Your task to perform on an android device: Open ESPN.com Image 0: 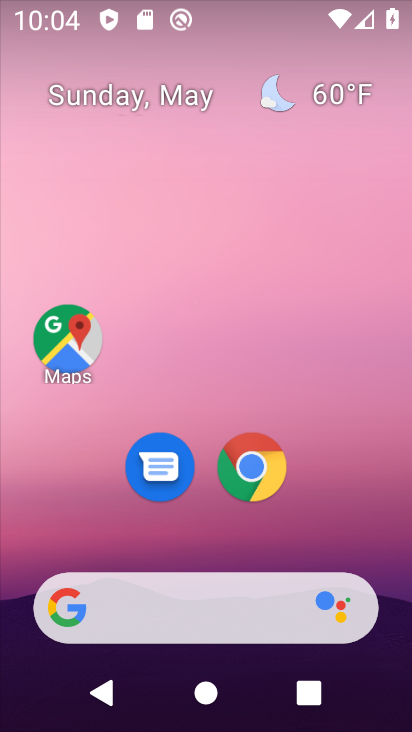
Step 0: drag from (377, 517) to (335, 157)
Your task to perform on an android device: Open ESPN.com Image 1: 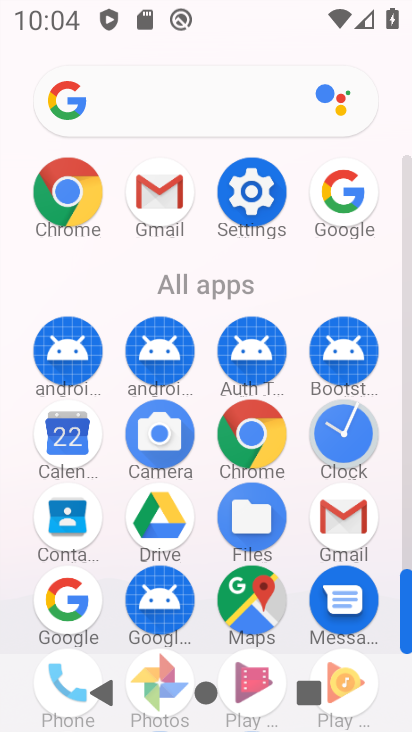
Step 1: click (242, 457)
Your task to perform on an android device: Open ESPN.com Image 2: 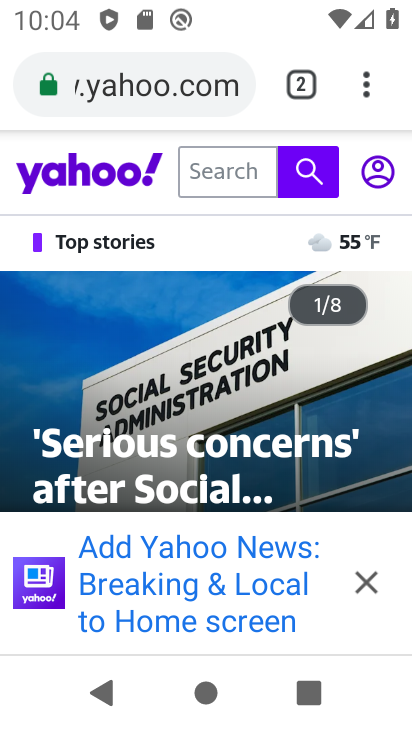
Step 2: click (179, 84)
Your task to perform on an android device: Open ESPN.com Image 3: 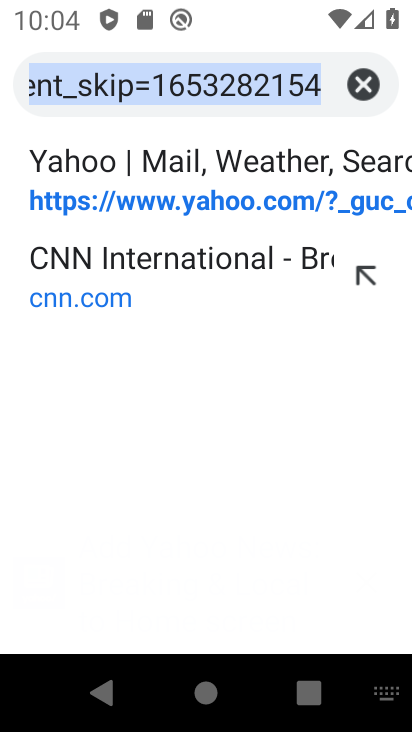
Step 3: click (366, 90)
Your task to perform on an android device: Open ESPN.com Image 4: 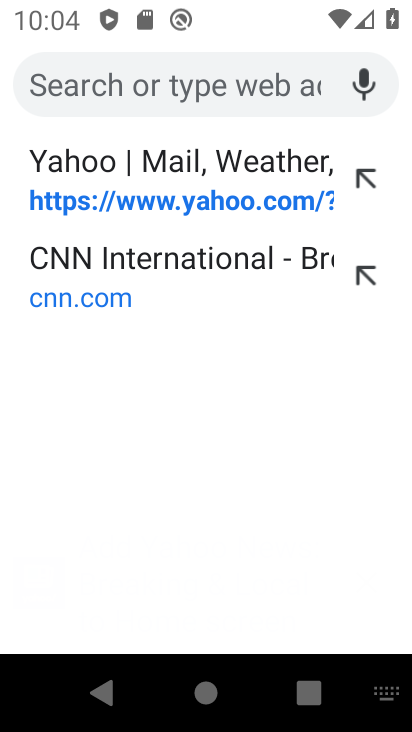
Step 4: type "espn.com"
Your task to perform on an android device: Open ESPN.com Image 5: 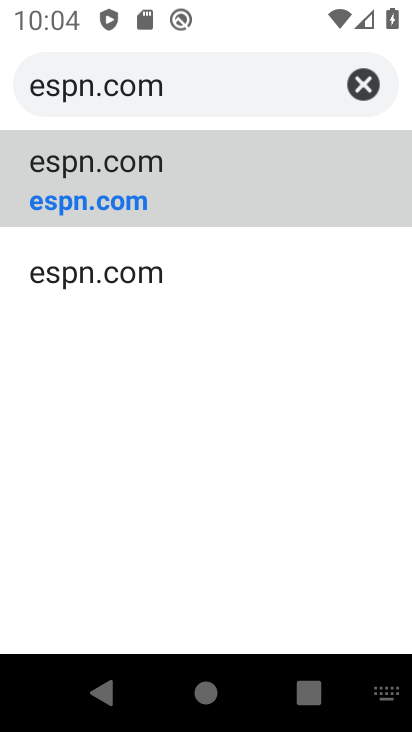
Step 5: click (107, 133)
Your task to perform on an android device: Open ESPN.com Image 6: 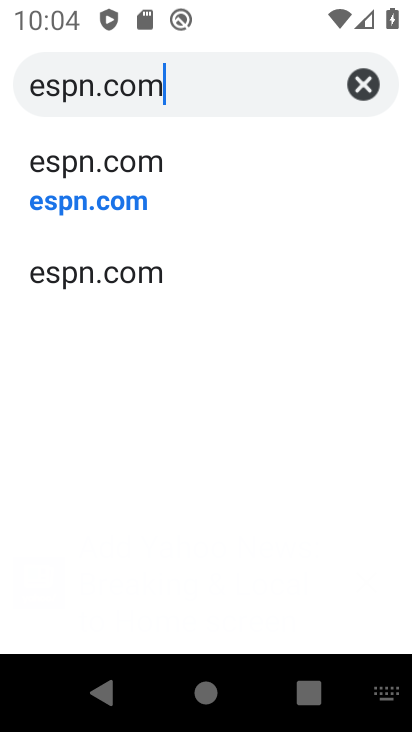
Step 6: click (113, 159)
Your task to perform on an android device: Open ESPN.com Image 7: 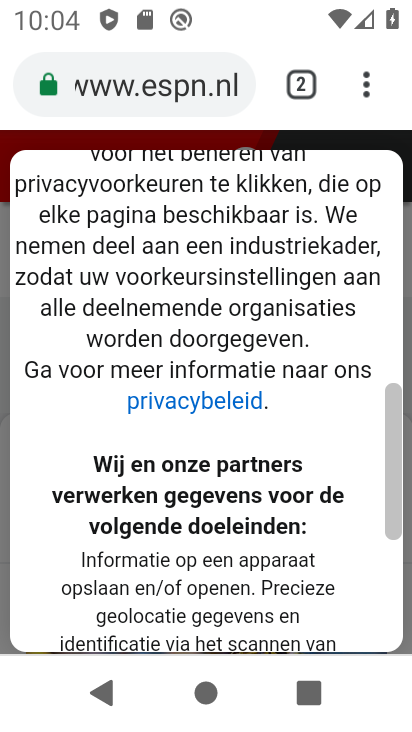
Step 7: task complete